Your task to perform on an android device: change keyboard looks Image 0: 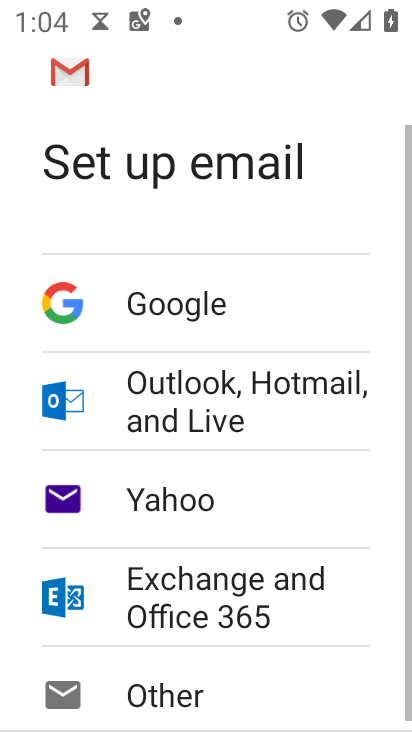
Step 0: press home button
Your task to perform on an android device: change keyboard looks Image 1: 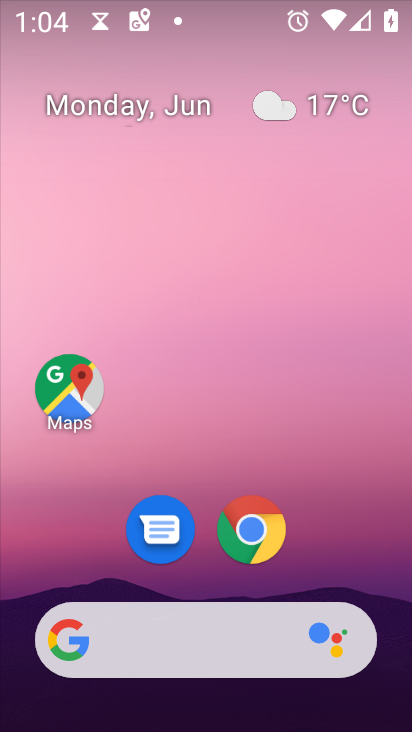
Step 1: drag from (328, 537) to (277, 14)
Your task to perform on an android device: change keyboard looks Image 2: 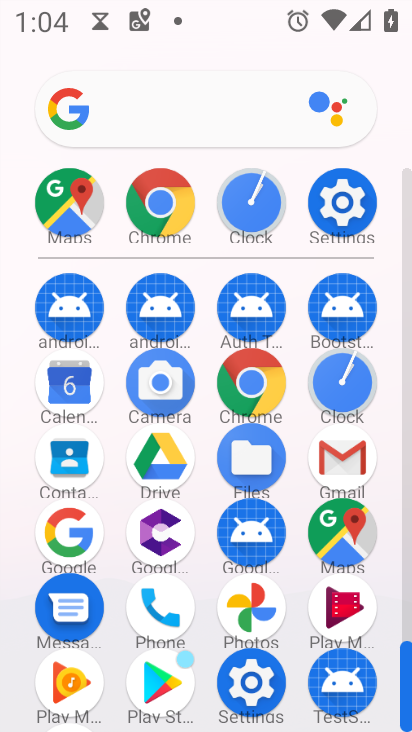
Step 2: click (341, 200)
Your task to perform on an android device: change keyboard looks Image 3: 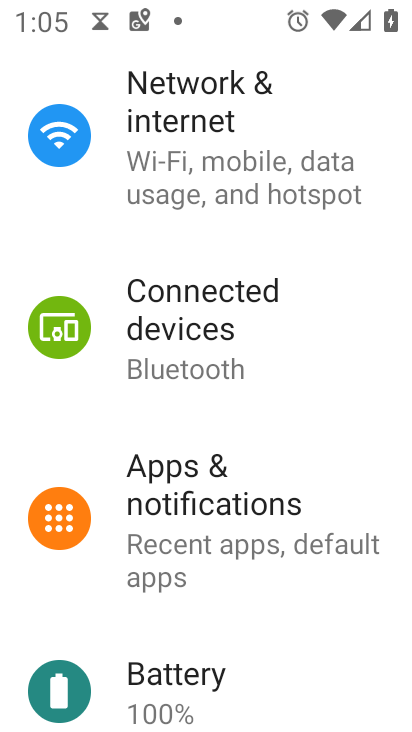
Step 3: drag from (235, 272) to (157, 684)
Your task to perform on an android device: change keyboard looks Image 4: 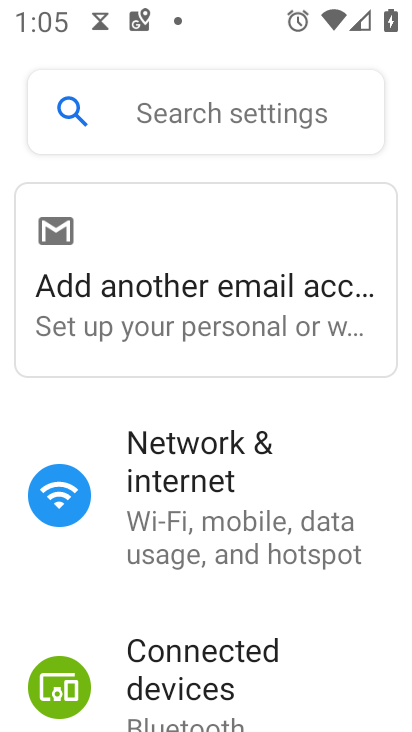
Step 4: drag from (158, 661) to (171, 98)
Your task to perform on an android device: change keyboard looks Image 5: 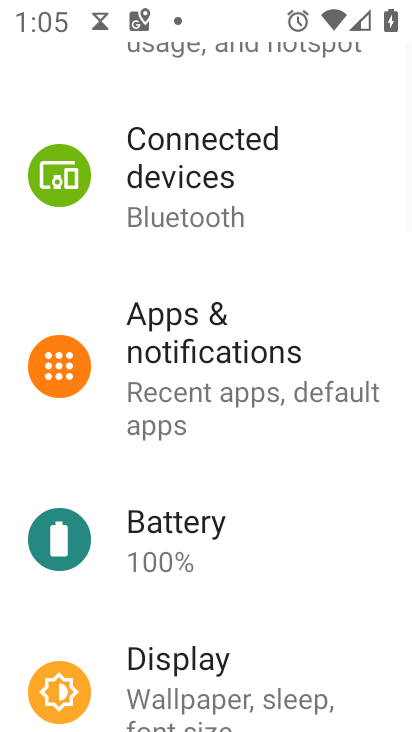
Step 5: drag from (163, 541) to (184, 65)
Your task to perform on an android device: change keyboard looks Image 6: 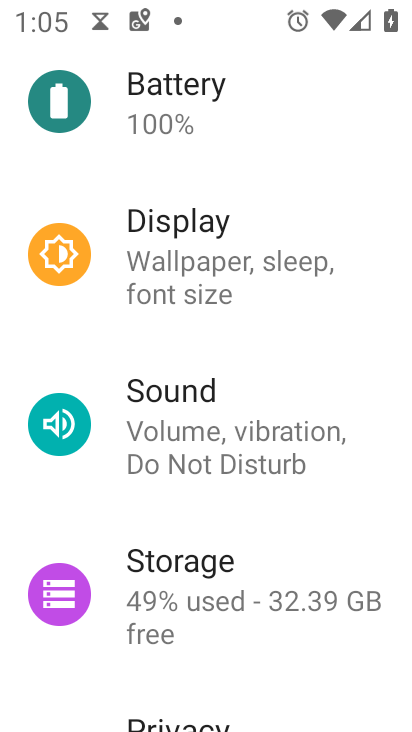
Step 6: drag from (214, 700) to (230, 95)
Your task to perform on an android device: change keyboard looks Image 7: 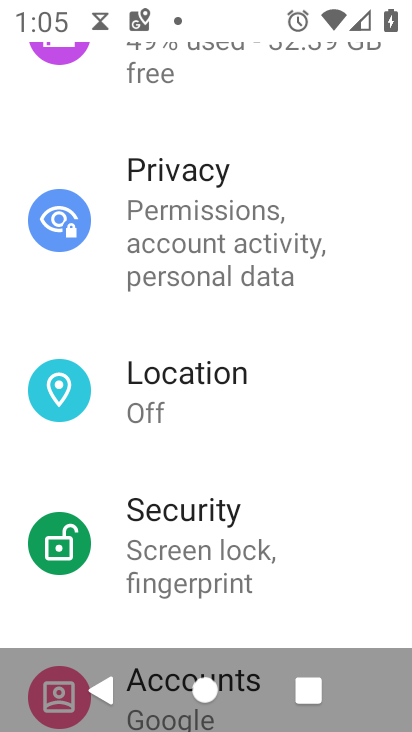
Step 7: drag from (204, 598) to (255, 105)
Your task to perform on an android device: change keyboard looks Image 8: 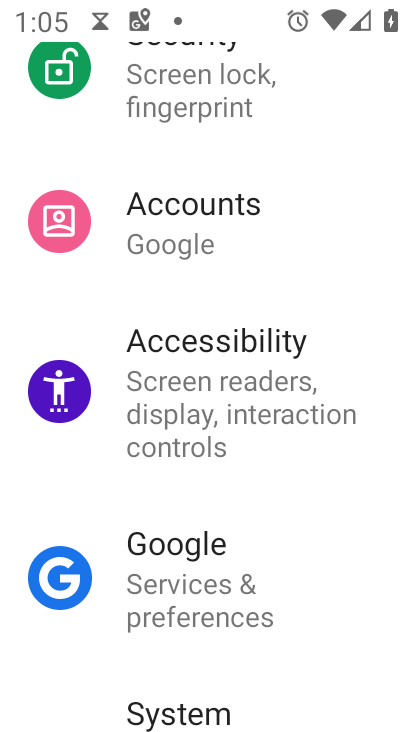
Step 8: drag from (216, 646) to (264, 181)
Your task to perform on an android device: change keyboard looks Image 9: 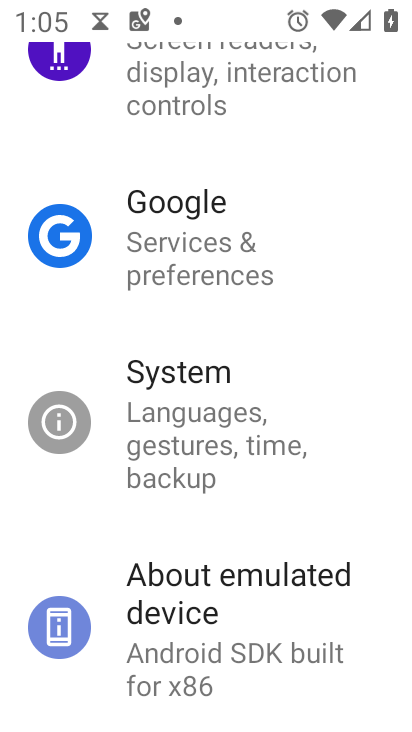
Step 9: drag from (237, 673) to (236, 300)
Your task to perform on an android device: change keyboard looks Image 10: 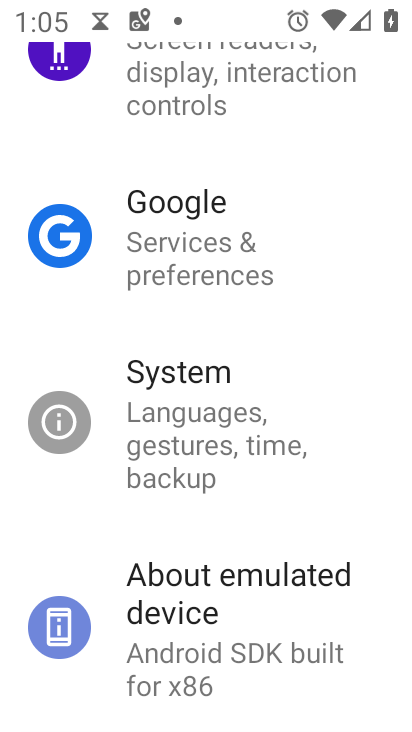
Step 10: click (197, 437)
Your task to perform on an android device: change keyboard looks Image 11: 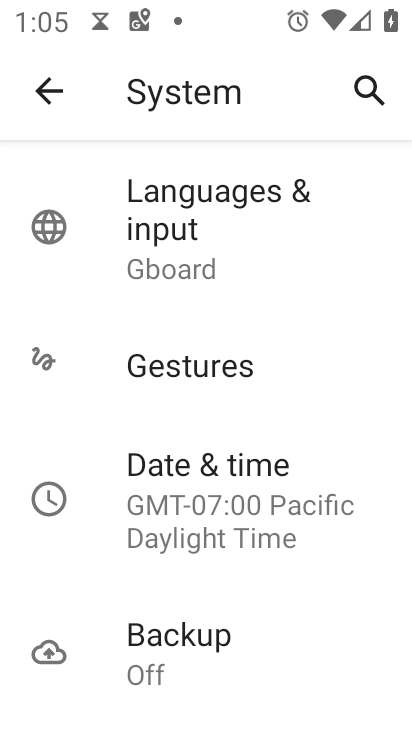
Step 11: drag from (210, 654) to (207, 259)
Your task to perform on an android device: change keyboard looks Image 12: 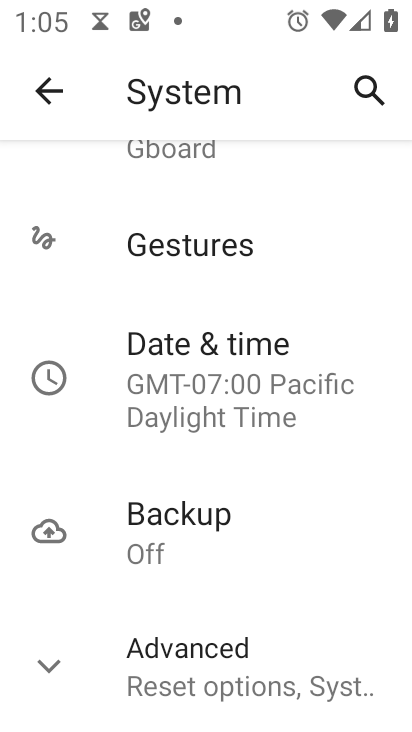
Step 12: drag from (210, 247) to (196, 719)
Your task to perform on an android device: change keyboard looks Image 13: 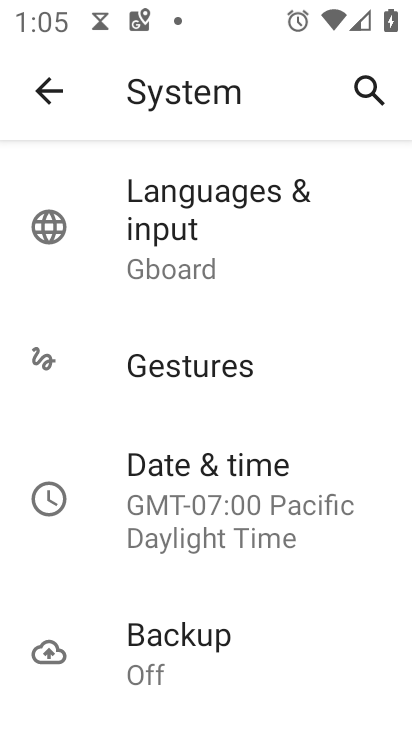
Step 13: click (186, 242)
Your task to perform on an android device: change keyboard looks Image 14: 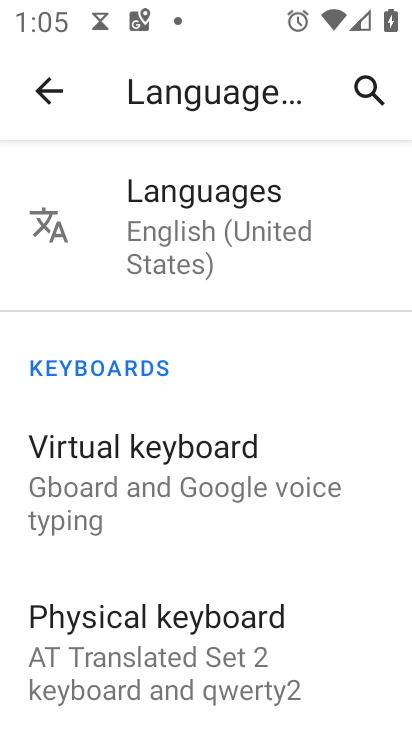
Step 14: click (167, 461)
Your task to perform on an android device: change keyboard looks Image 15: 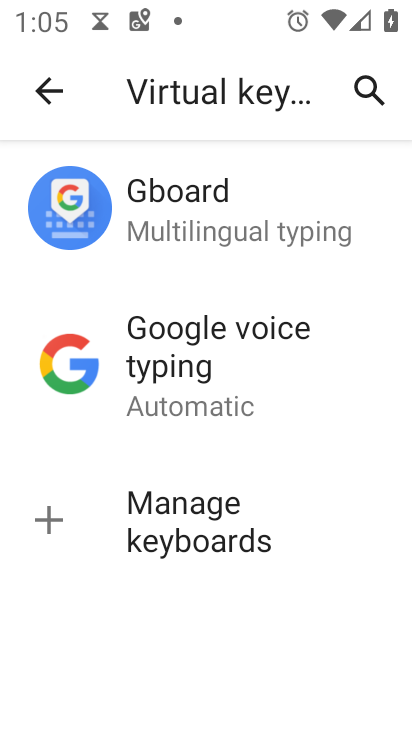
Step 15: click (198, 211)
Your task to perform on an android device: change keyboard looks Image 16: 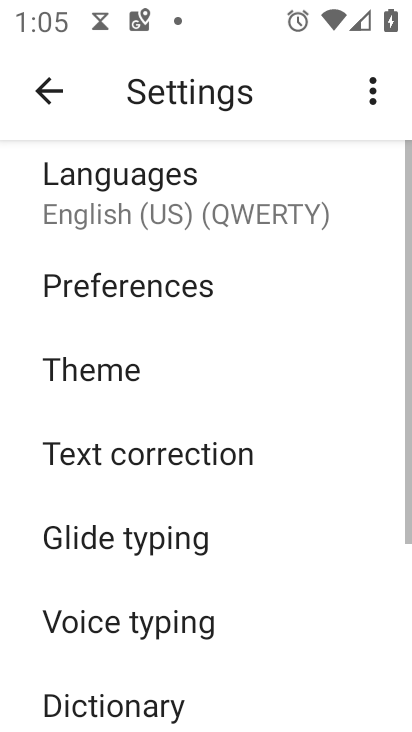
Step 16: click (111, 378)
Your task to perform on an android device: change keyboard looks Image 17: 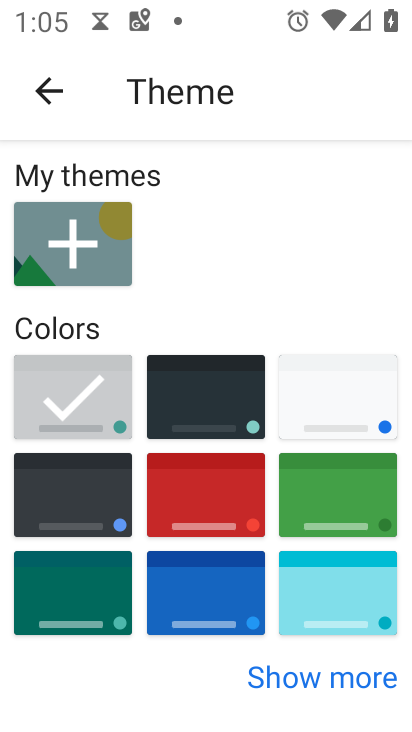
Step 17: click (170, 402)
Your task to perform on an android device: change keyboard looks Image 18: 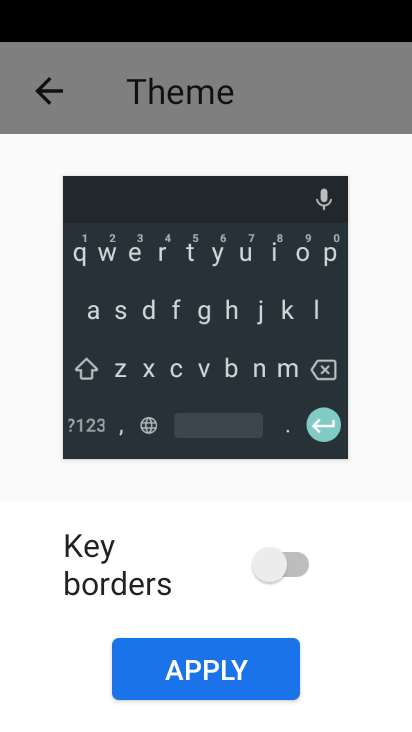
Step 18: click (209, 646)
Your task to perform on an android device: change keyboard looks Image 19: 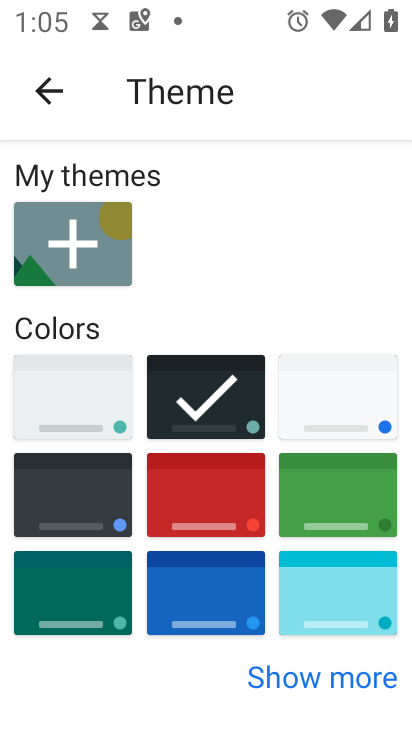
Step 19: task complete